Your task to perform on an android device: change the upload size in google photos Image 0: 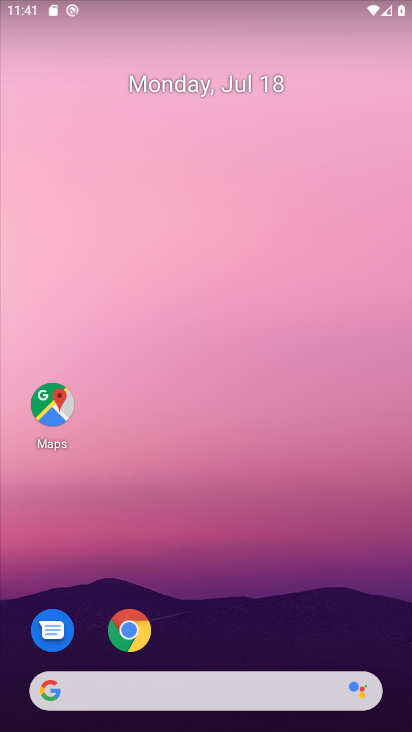
Step 0: drag from (201, 635) to (219, 96)
Your task to perform on an android device: change the upload size in google photos Image 1: 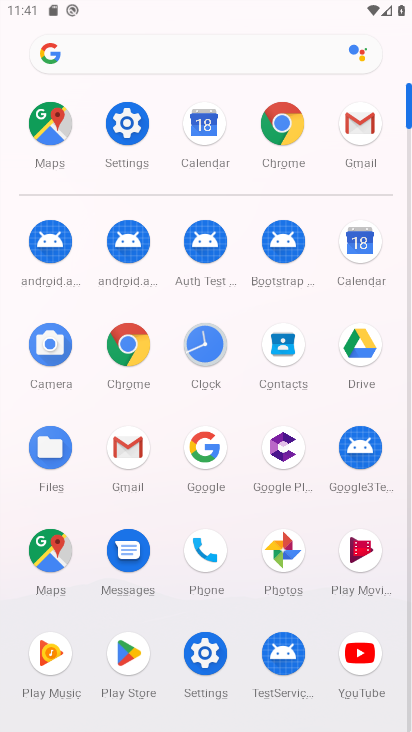
Step 1: click (296, 567)
Your task to perform on an android device: change the upload size in google photos Image 2: 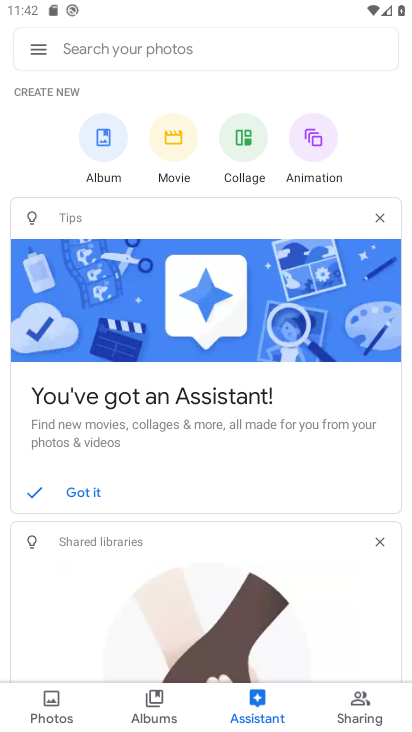
Step 2: click (40, 47)
Your task to perform on an android device: change the upload size in google photos Image 3: 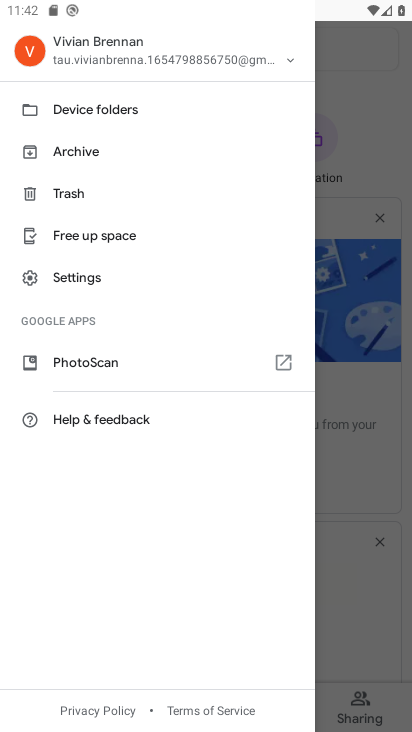
Step 3: click (86, 279)
Your task to perform on an android device: change the upload size in google photos Image 4: 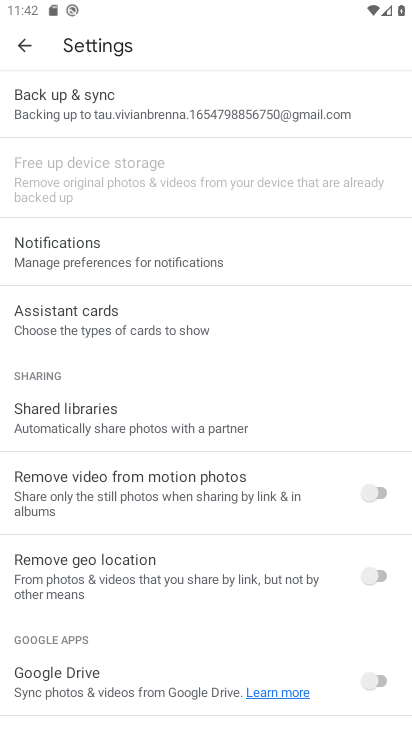
Step 4: click (71, 106)
Your task to perform on an android device: change the upload size in google photos Image 5: 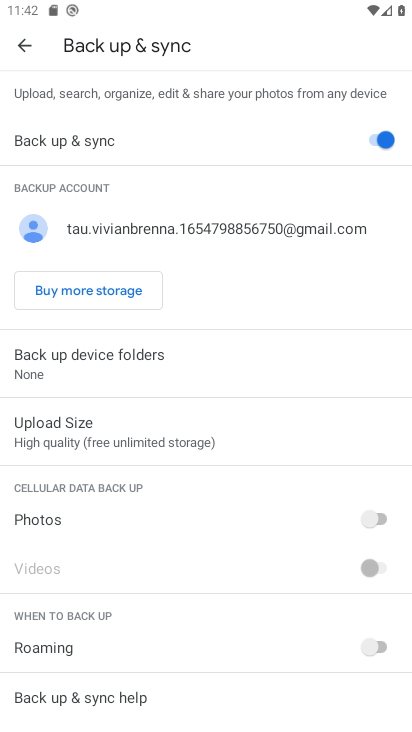
Step 5: click (107, 430)
Your task to perform on an android device: change the upload size in google photos Image 6: 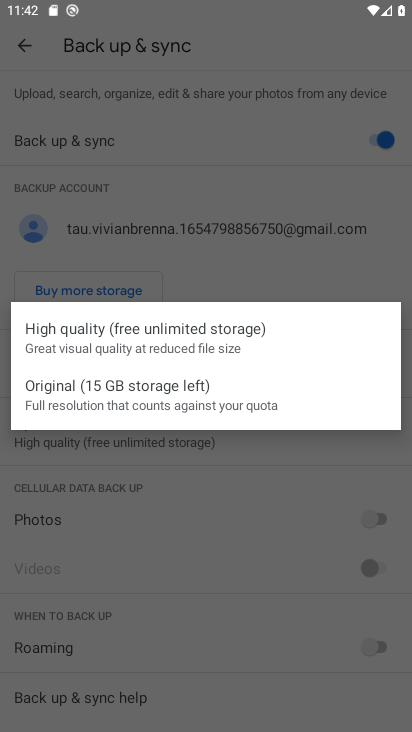
Step 6: click (102, 383)
Your task to perform on an android device: change the upload size in google photos Image 7: 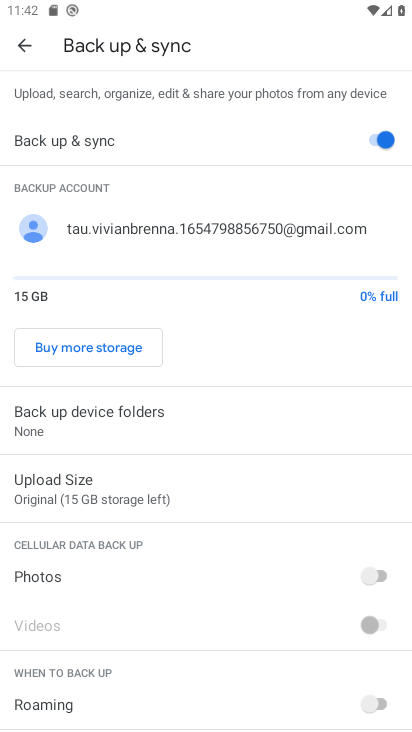
Step 7: task complete